Your task to perform on an android device: add a label to a message in the gmail app Image 0: 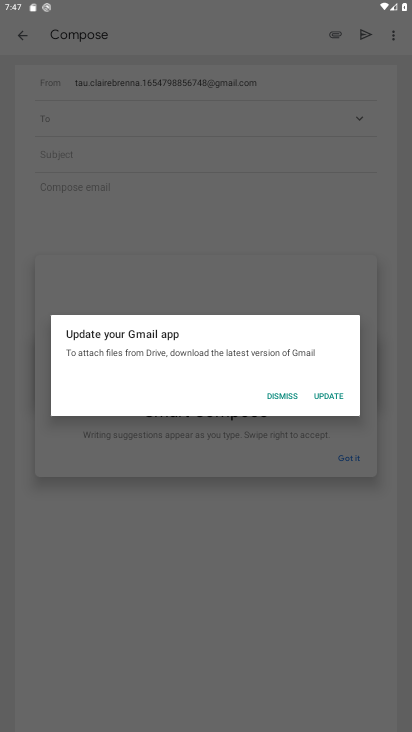
Step 0: press home button
Your task to perform on an android device: add a label to a message in the gmail app Image 1: 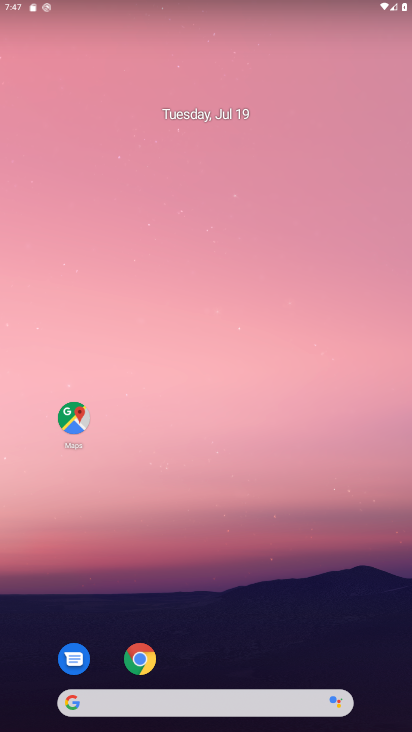
Step 1: drag from (214, 666) to (248, 12)
Your task to perform on an android device: add a label to a message in the gmail app Image 2: 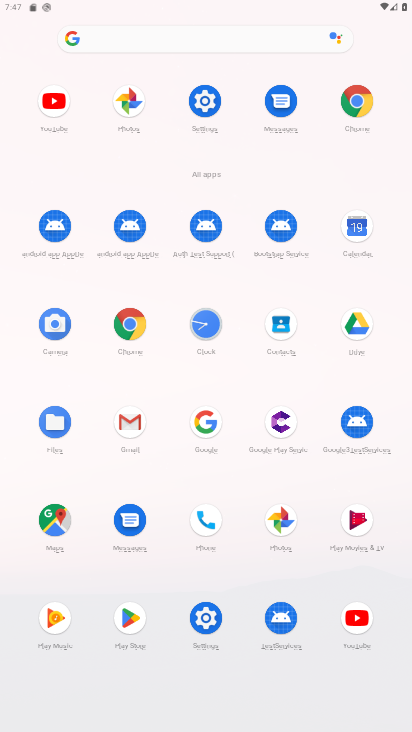
Step 2: click (125, 430)
Your task to perform on an android device: add a label to a message in the gmail app Image 3: 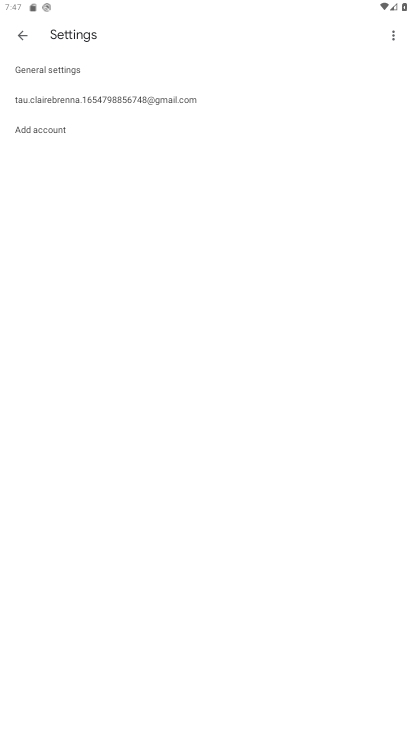
Step 3: click (16, 32)
Your task to perform on an android device: add a label to a message in the gmail app Image 4: 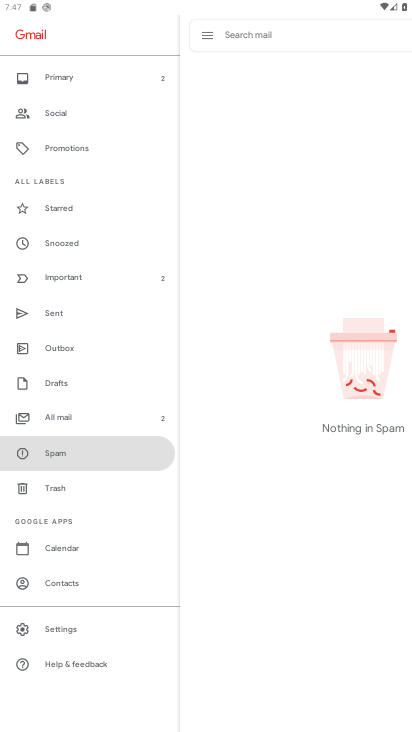
Step 4: click (78, 84)
Your task to perform on an android device: add a label to a message in the gmail app Image 5: 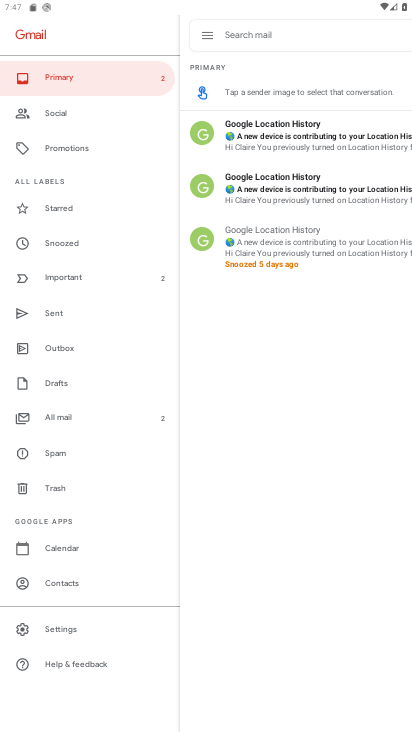
Step 5: click (198, 132)
Your task to perform on an android device: add a label to a message in the gmail app Image 6: 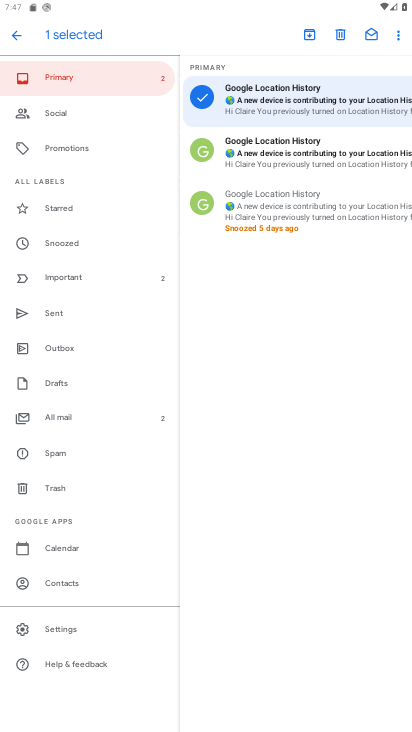
Step 6: click (392, 36)
Your task to perform on an android device: add a label to a message in the gmail app Image 7: 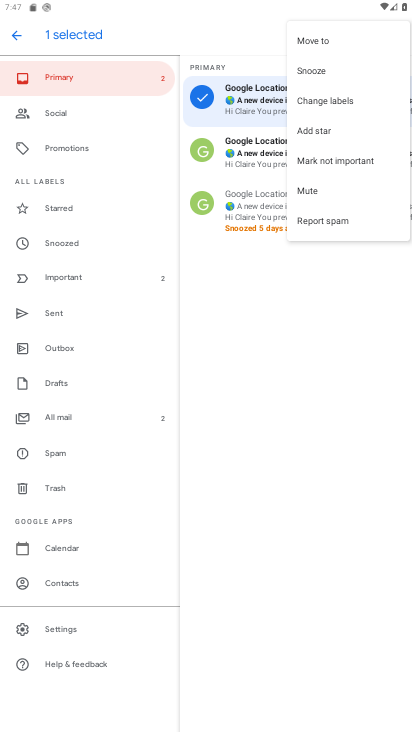
Step 7: click (344, 102)
Your task to perform on an android device: add a label to a message in the gmail app Image 8: 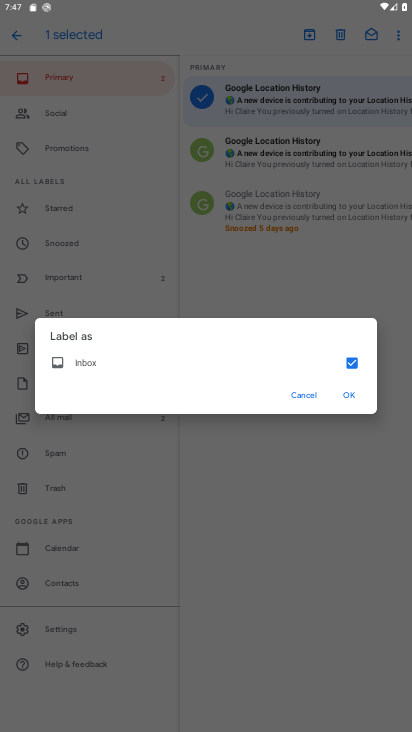
Step 8: click (347, 392)
Your task to perform on an android device: add a label to a message in the gmail app Image 9: 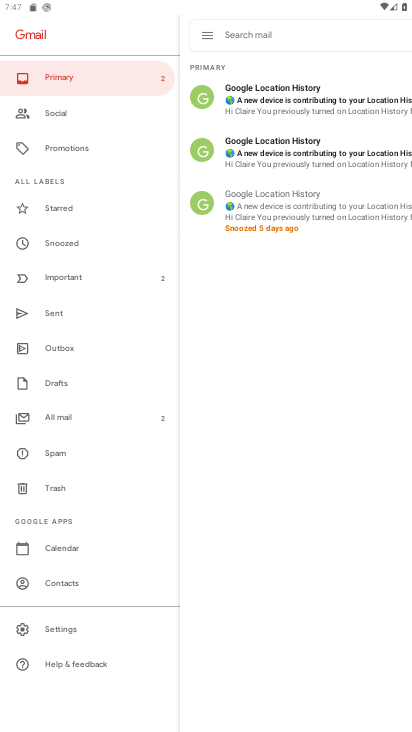
Step 9: task complete